Your task to perform on an android device: turn off picture-in-picture Image 0: 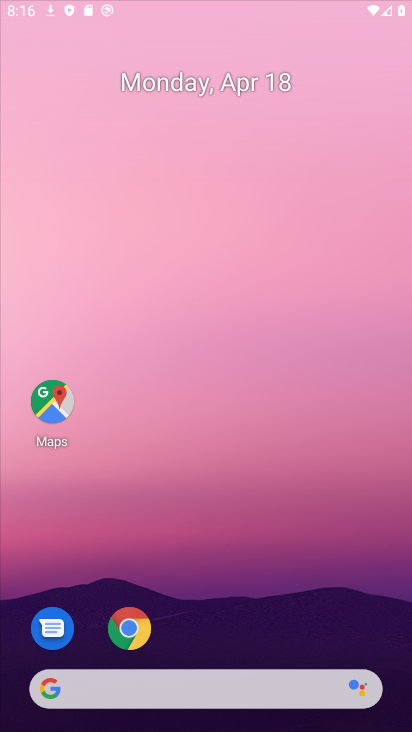
Step 0: click (345, 37)
Your task to perform on an android device: turn off picture-in-picture Image 1: 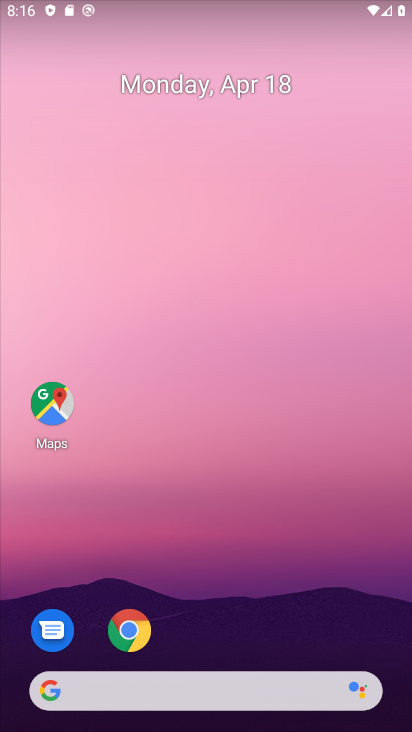
Step 1: click (130, 621)
Your task to perform on an android device: turn off picture-in-picture Image 2: 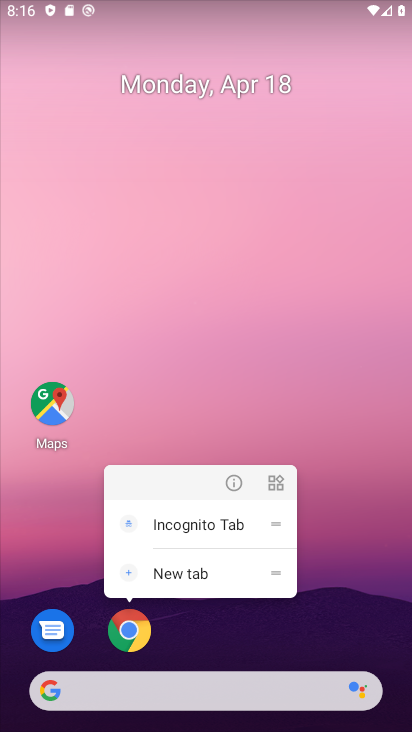
Step 2: click (230, 474)
Your task to perform on an android device: turn off picture-in-picture Image 3: 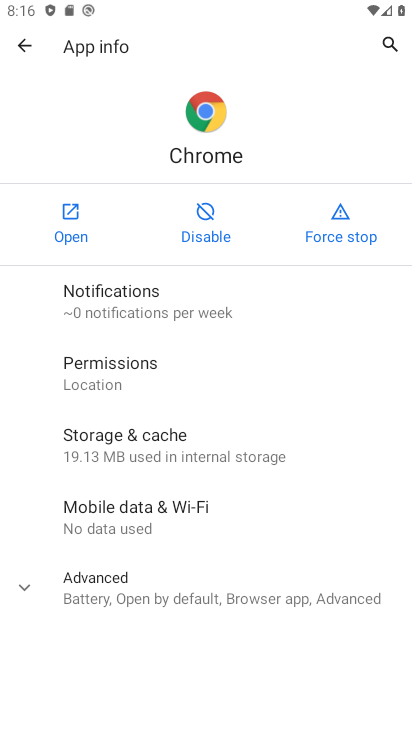
Step 3: drag from (179, 577) to (203, 299)
Your task to perform on an android device: turn off picture-in-picture Image 4: 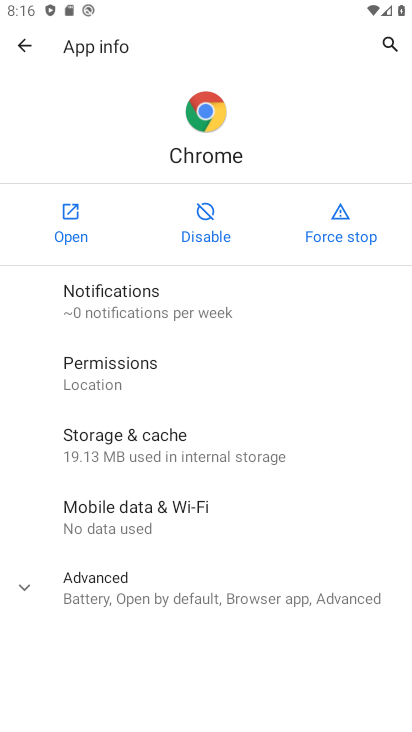
Step 4: click (125, 596)
Your task to perform on an android device: turn off picture-in-picture Image 5: 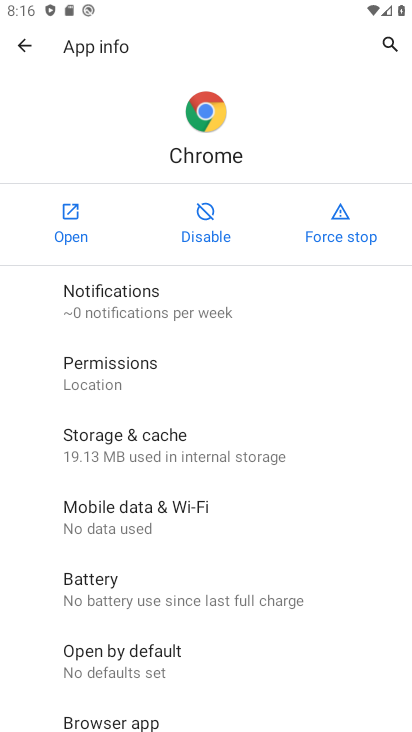
Step 5: drag from (143, 692) to (197, 451)
Your task to perform on an android device: turn off picture-in-picture Image 6: 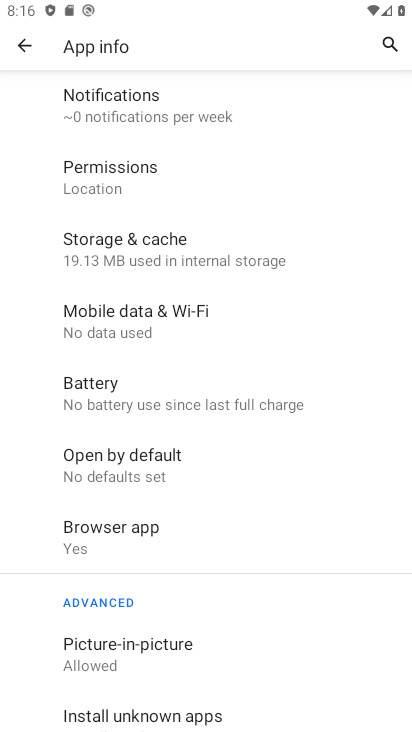
Step 6: click (155, 651)
Your task to perform on an android device: turn off picture-in-picture Image 7: 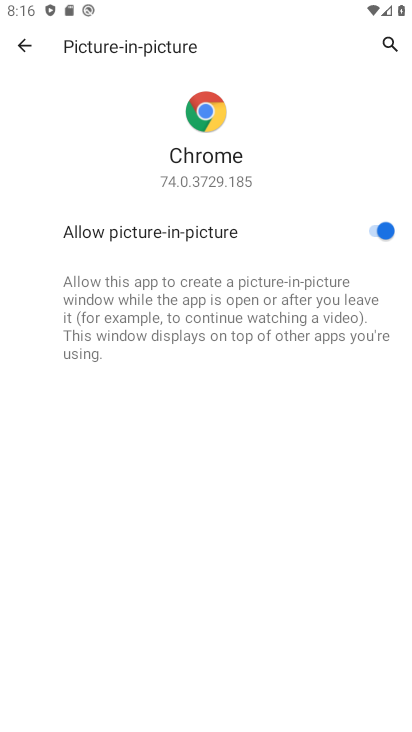
Step 7: click (370, 232)
Your task to perform on an android device: turn off picture-in-picture Image 8: 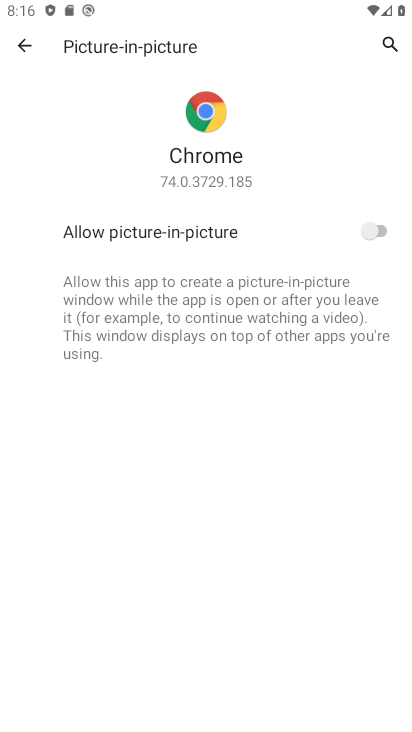
Step 8: task complete